Your task to perform on an android device: check out phone information Image 0: 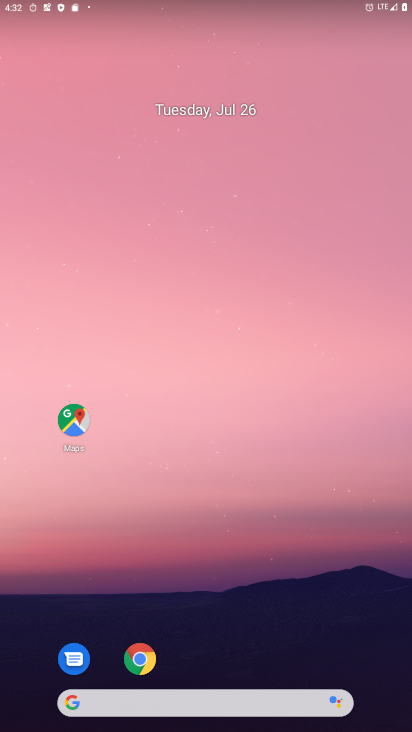
Step 0: press home button
Your task to perform on an android device: check out phone information Image 1: 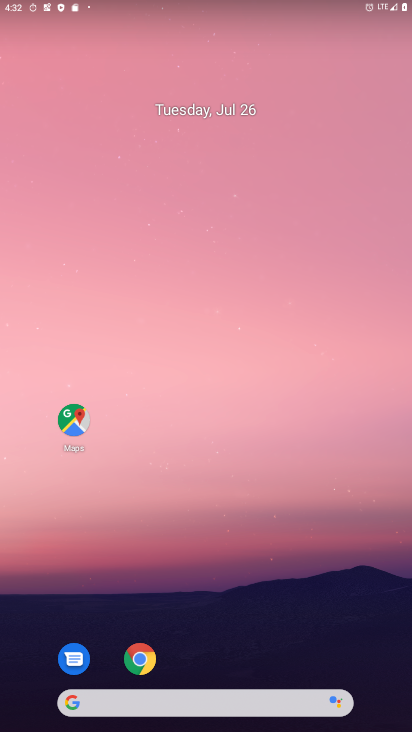
Step 1: drag from (249, 581) to (309, 128)
Your task to perform on an android device: check out phone information Image 2: 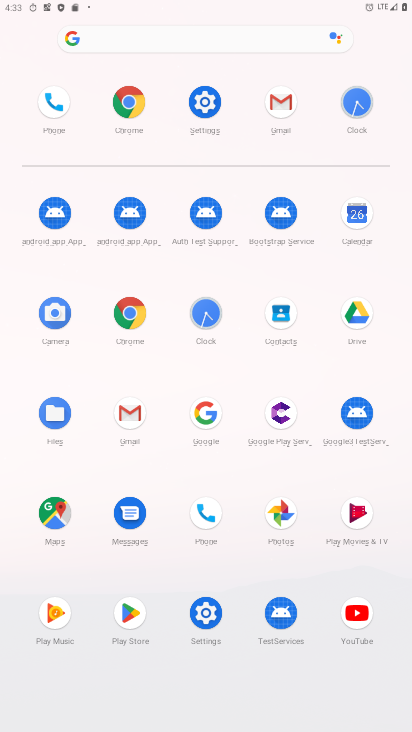
Step 2: click (208, 105)
Your task to perform on an android device: check out phone information Image 3: 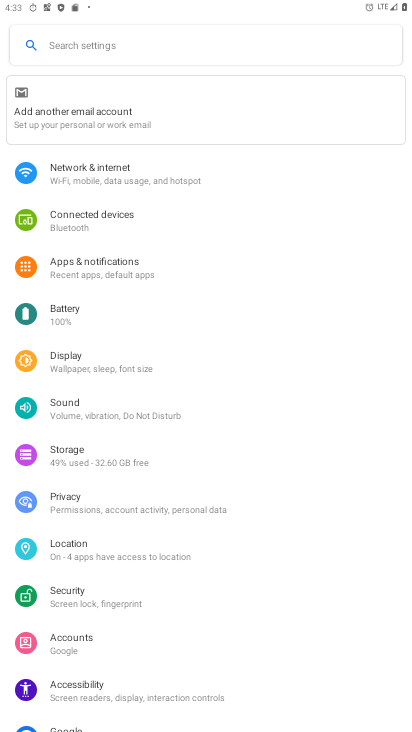
Step 3: drag from (276, 476) to (314, 30)
Your task to perform on an android device: check out phone information Image 4: 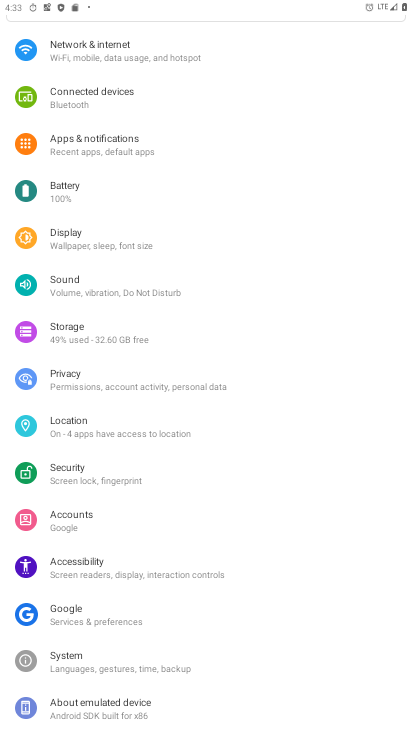
Step 4: click (85, 723)
Your task to perform on an android device: check out phone information Image 5: 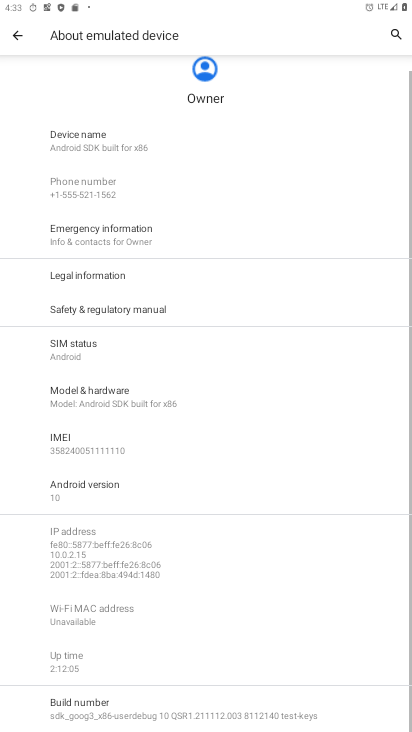
Step 5: task complete